Your task to perform on an android device: Open settings Image 0: 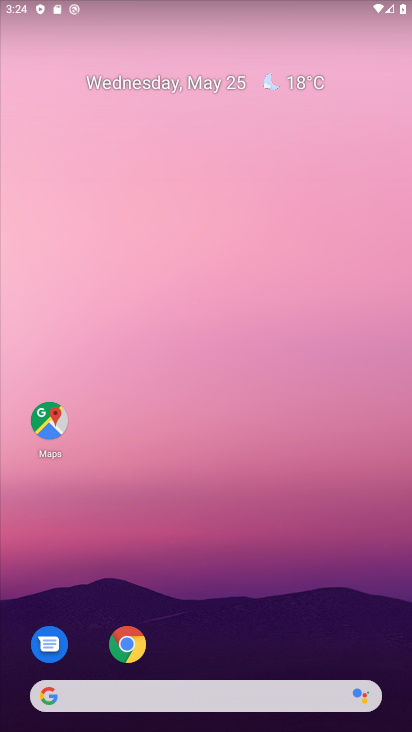
Step 0: drag from (240, 637) to (179, 132)
Your task to perform on an android device: Open settings Image 1: 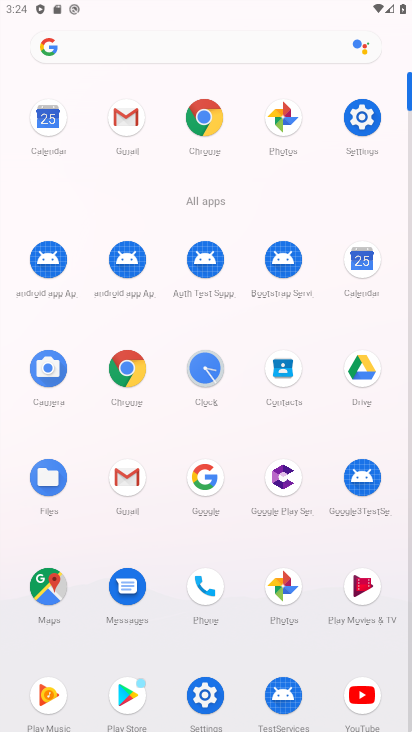
Step 1: click (362, 115)
Your task to perform on an android device: Open settings Image 2: 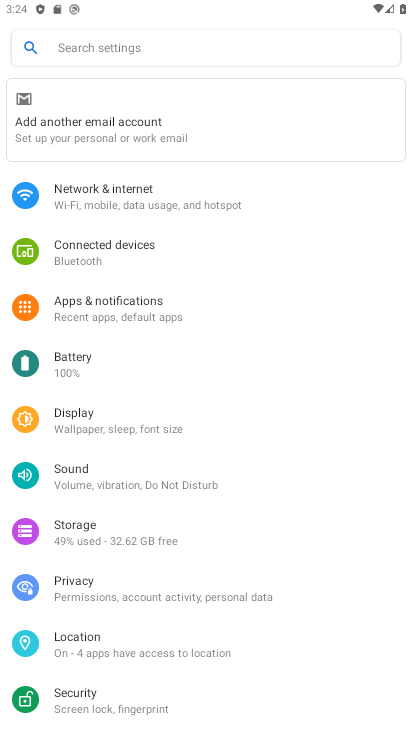
Step 2: task complete